Your task to perform on an android device: turn off smart reply in the gmail app Image 0: 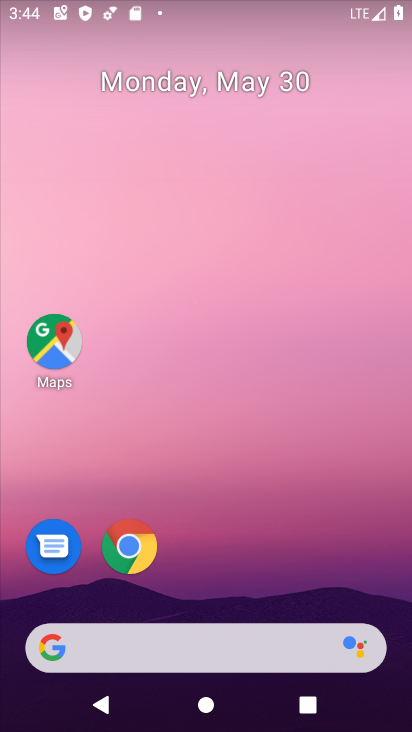
Step 0: drag from (234, 617) to (287, 23)
Your task to perform on an android device: turn off smart reply in the gmail app Image 1: 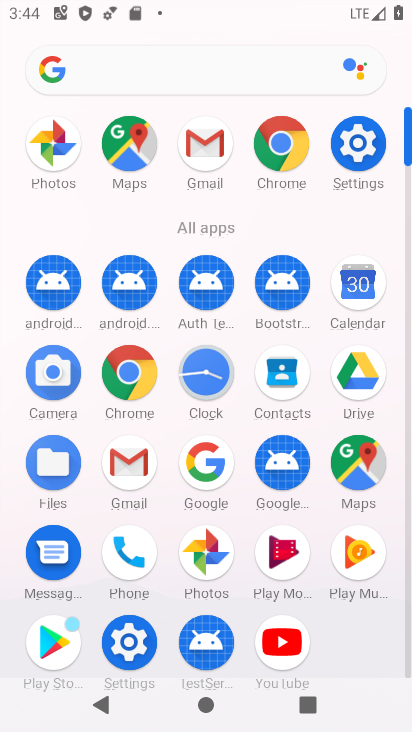
Step 1: click (185, 155)
Your task to perform on an android device: turn off smart reply in the gmail app Image 2: 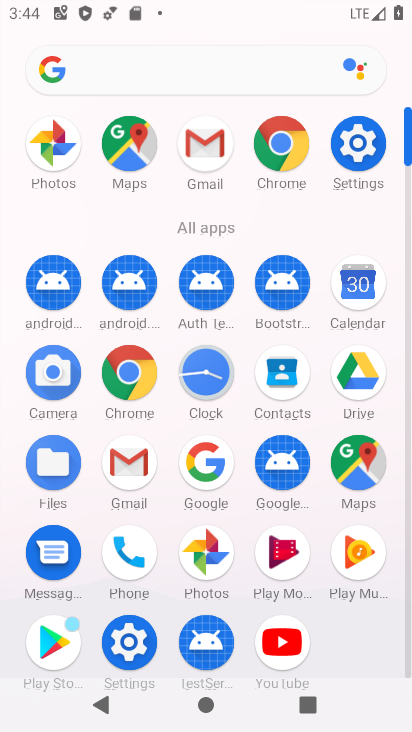
Step 2: click (185, 155)
Your task to perform on an android device: turn off smart reply in the gmail app Image 3: 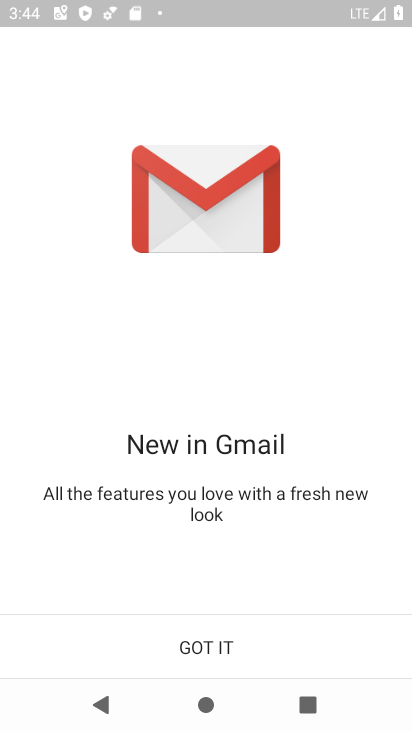
Step 3: click (183, 652)
Your task to perform on an android device: turn off smart reply in the gmail app Image 4: 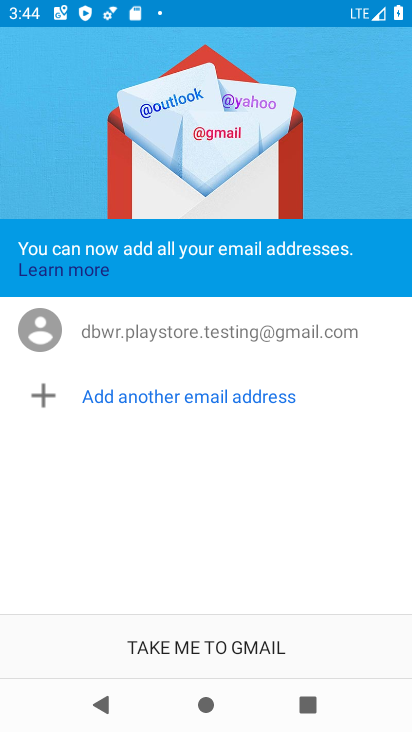
Step 4: click (183, 650)
Your task to perform on an android device: turn off smart reply in the gmail app Image 5: 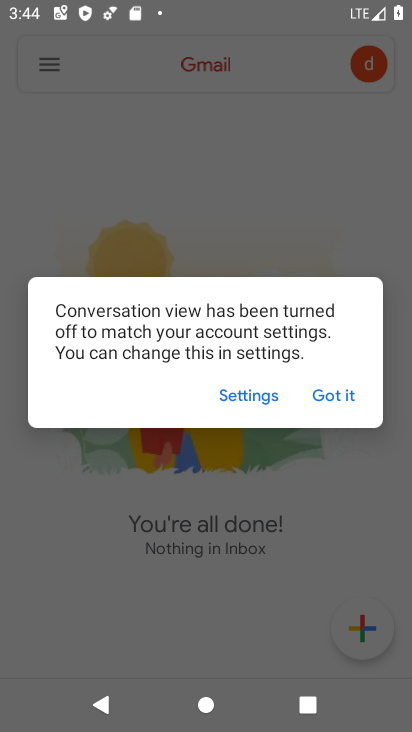
Step 5: click (330, 403)
Your task to perform on an android device: turn off smart reply in the gmail app Image 6: 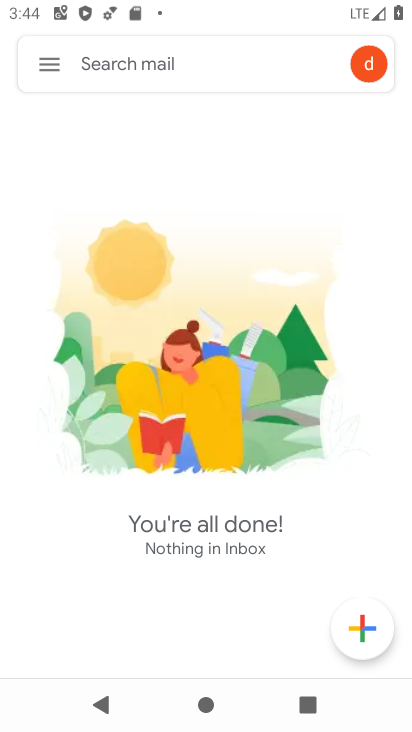
Step 6: click (39, 61)
Your task to perform on an android device: turn off smart reply in the gmail app Image 7: 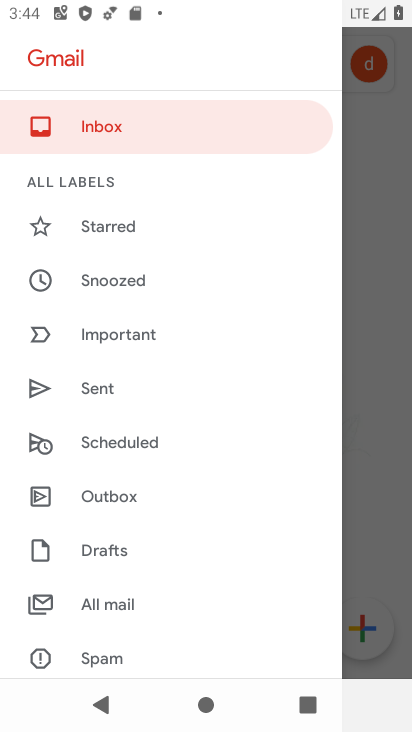
Step 7: drag from (120, 564) to (152, 142)
Your task to perform on an android device: turn off smart reply in the gmail app Image 8: 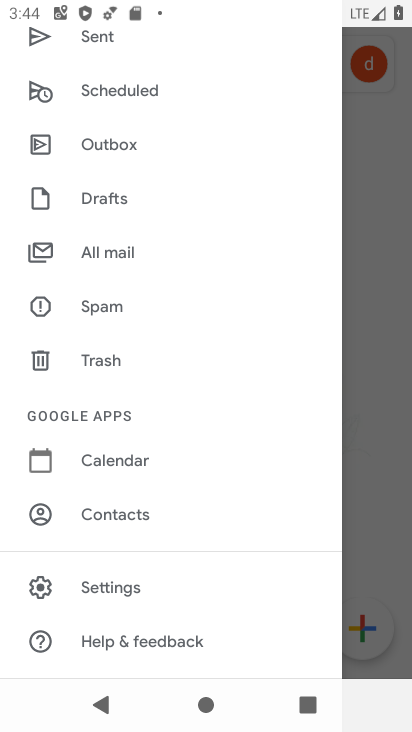
Step 8: click (121, 594)
Your task to perform on an android device: turn off smart reply in the gmail app Image 9: 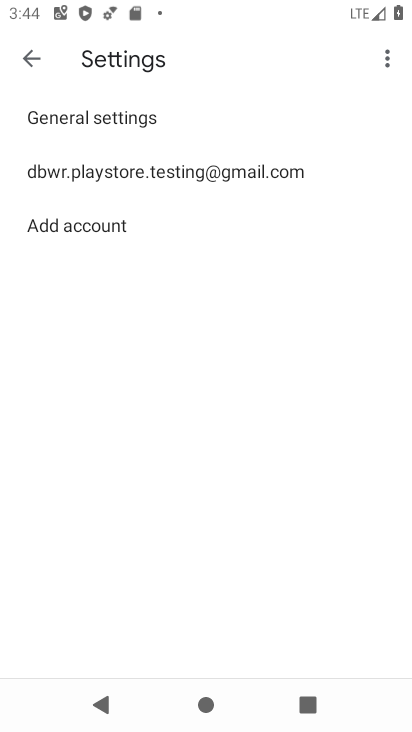
Step 9: click (174, 168)
Your task to perform on an android device: turn off smart reply in the gmail app Image 10: 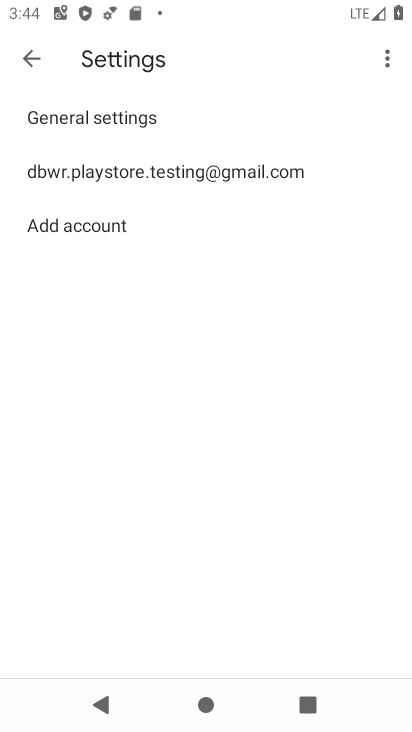
Step 10: click (174, 168)
Your task to perform on an android device: turn off smart reply in the gmail app Image 11: 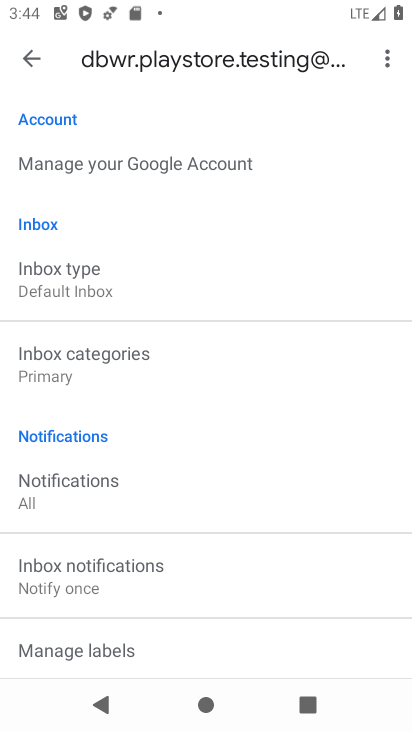
Step 11: drag from (158, 460) to (209, 173)
Your task to perform on an android device: turn off smart reply in the gmail app Image 12: 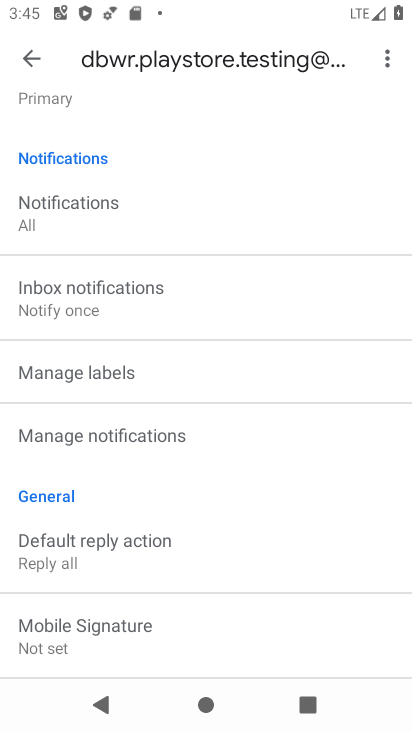
Step 12: drag from (173, 432) to (214, 207)
Your task to perform on an android device: turn off smart reply in the gmail app Image 13: 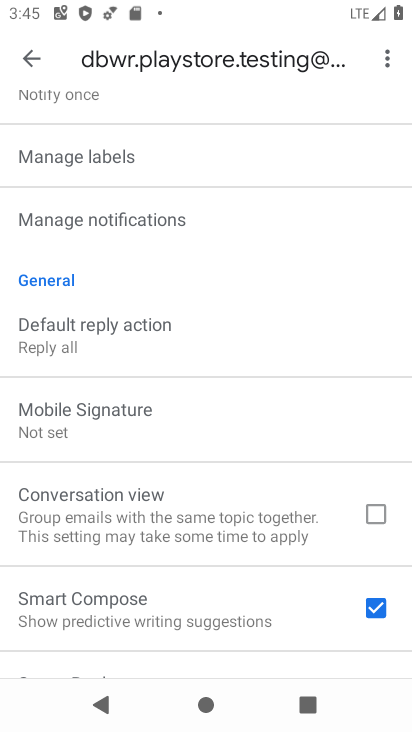
Step 13: click (112, 337)
Your task to perform on an android device: turn off smart reply in the gmail app Image 14: 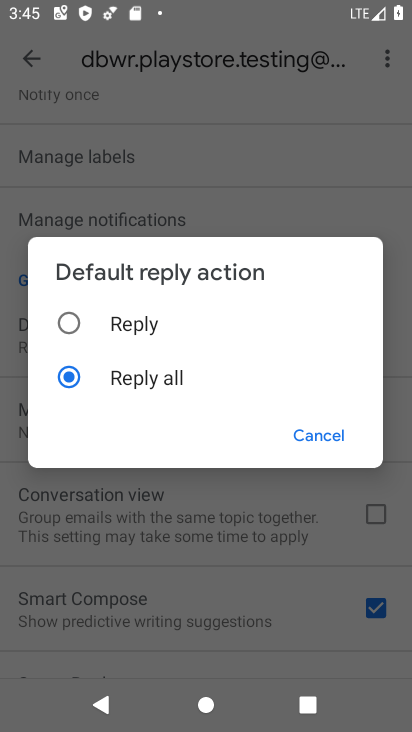
Step 14: click (136, 330)
Your task to perform on an android device: turn off smart reply in the gmail app Image 15: 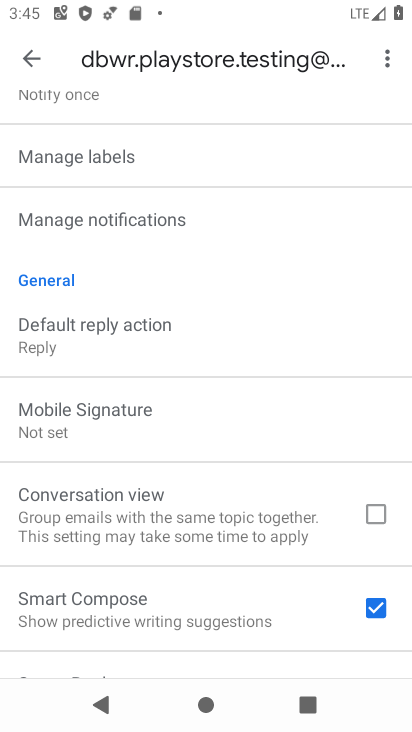
Step 15: task complete